Your task to perform on an android device: change timer sound Image 0: 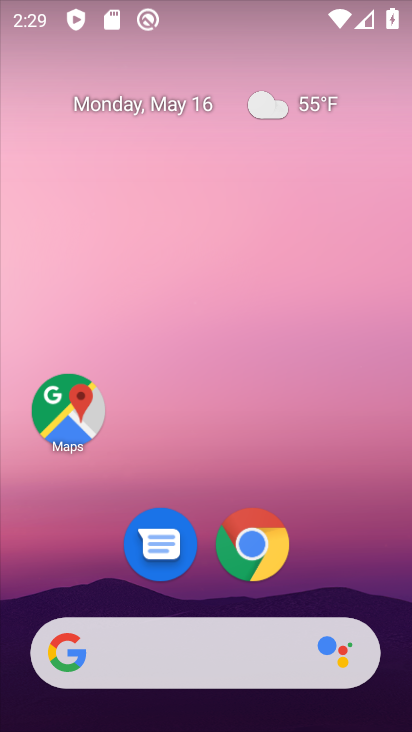
Step 0: drag from (358, 526) to (411, 136)
Your task to perform on an android device: change timer sound Image 1: 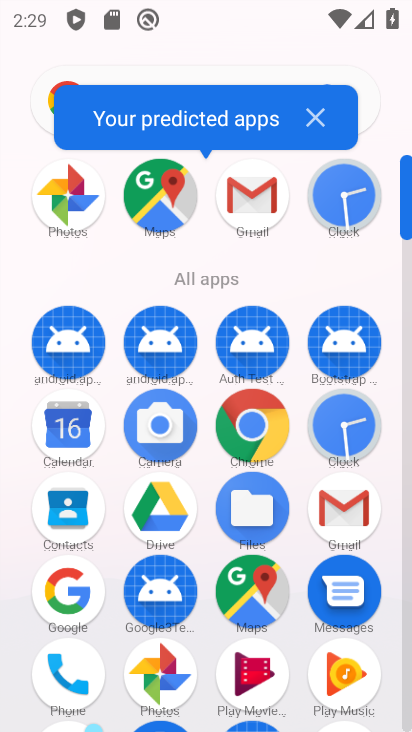
Step 1: click (304, 192)
Your task to perform on an android device: change timer sound Image 2: 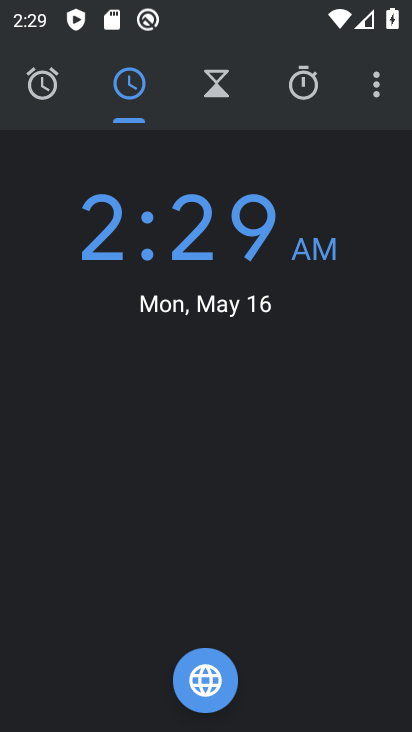
Step 2: click (382, 90)
Your task to perform on an android device: change timer sound Image 3: 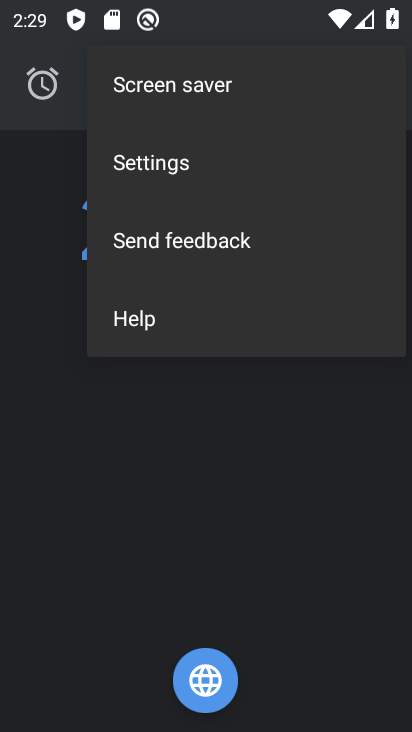
Step 3: click (173, 150)
Your task to perform on an android device: change timer sound Image 4: 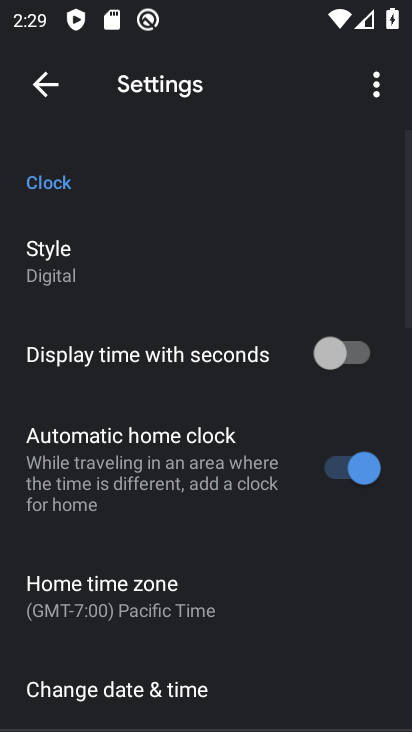
Step 4: drag from (257, 582) to (308, 189)
Your task to perform on an android device: change timer sound Image 5: 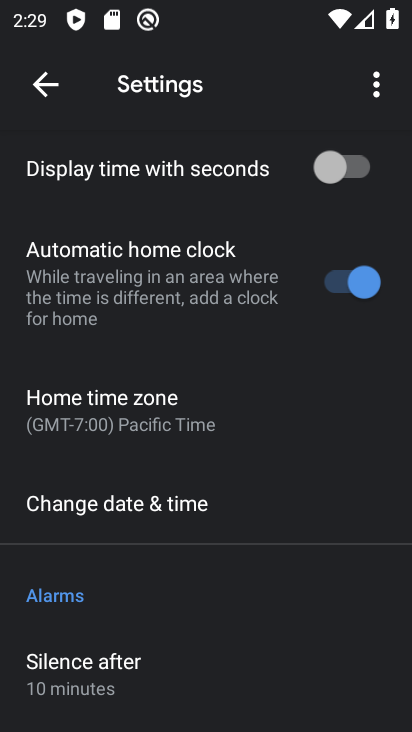
Step 5: drag from (315, 560) to (327, 217)
Your task to perform on an android device: change timer sound Image 6: 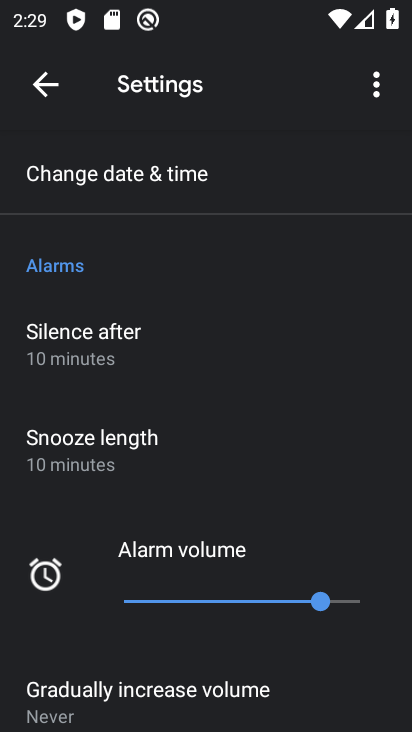
Step 6: drag from (222, 569) to (206, 252)
Your task to perform on an android device: change timer sound Image 7: 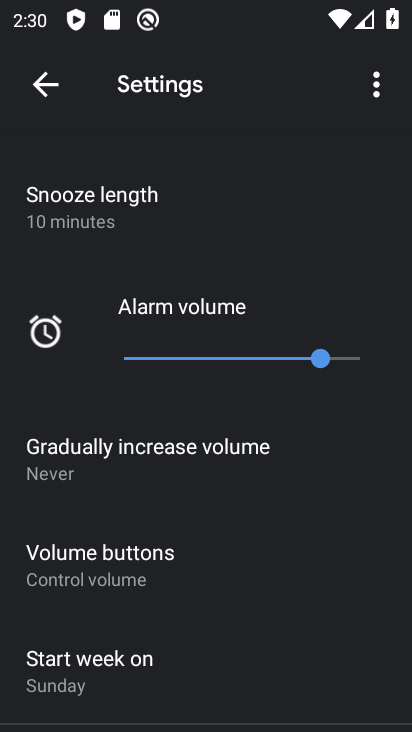
Step 7: drag from (202, 607) to (205, 205)
Your task to perform on an android device: change timer sound Image 8: 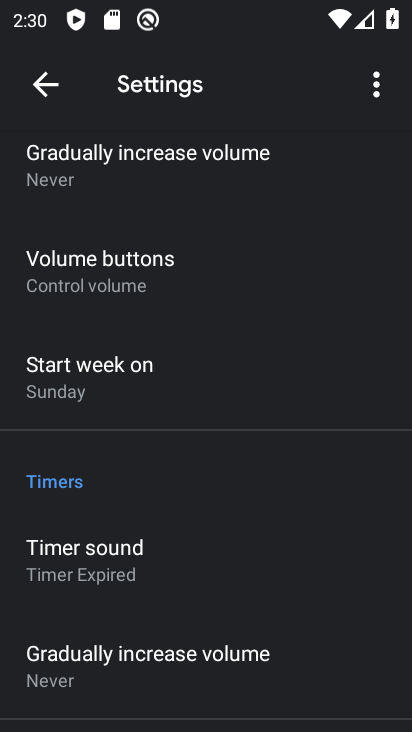
Step 8: click (113, 556)
Your task to perform on an android device: change timer sound Image 9: 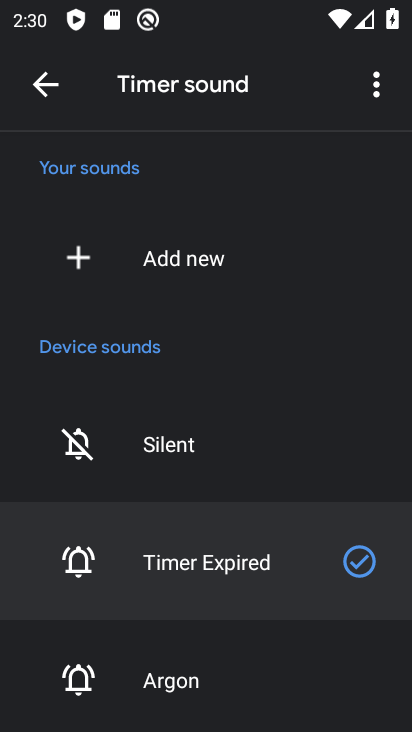
Step 9: drag from (150, 585) to (169, 305)
Your task to perform on an android device: change timer sound Image 10: 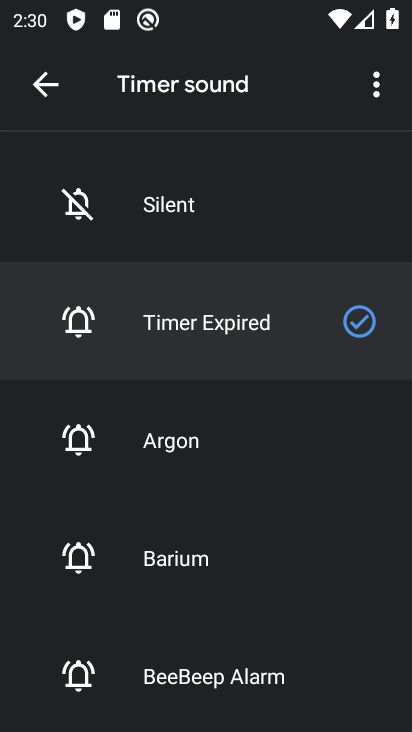
Step 10: click (176, 469)
Your task to perform on an android device: change timer sound Image 11: 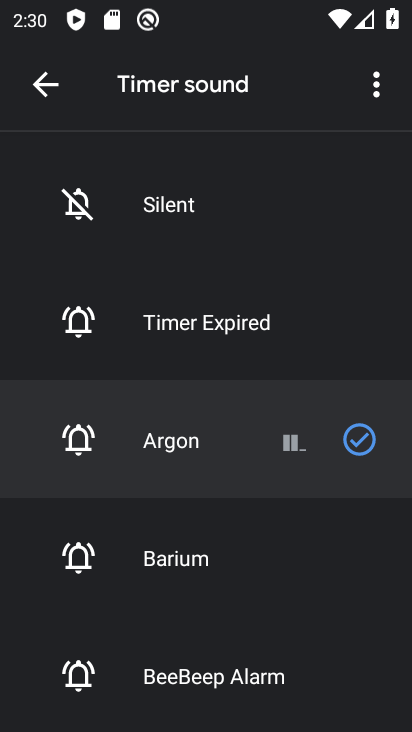
Step 11: task complete